Your task to perform on an android device: toggle data saver in the chrome app Image 0: 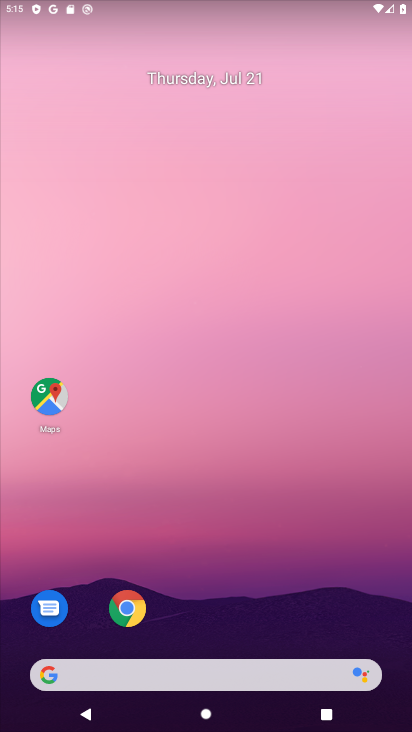
Step 0: click (132, 609)
Your task to perform on an android device: toggle data saver in the chrome app Image 1: 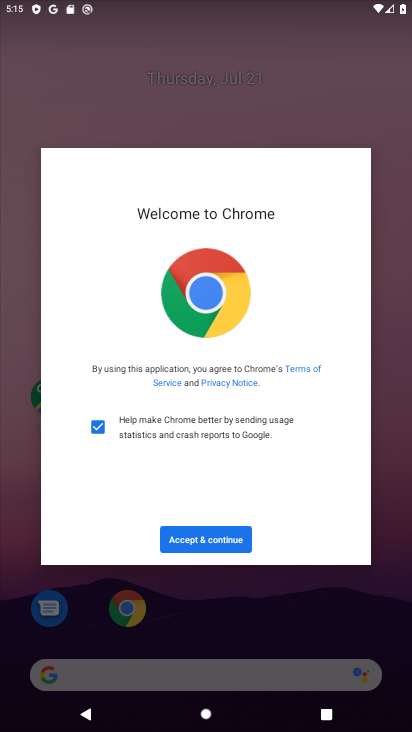
Step 1: click (208, 539)
Your task to perform on an android device: toggle data saver in the chrome app Image 2: 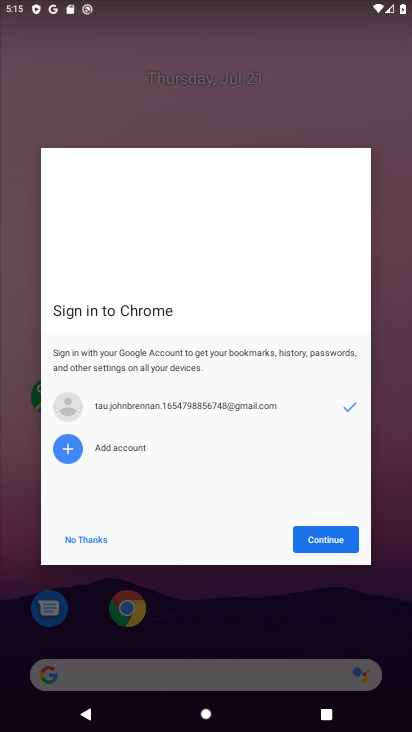
Step 2: click (316, 533)
Your task to perform on an android device: toggle data saver in the chrome app Image 3: 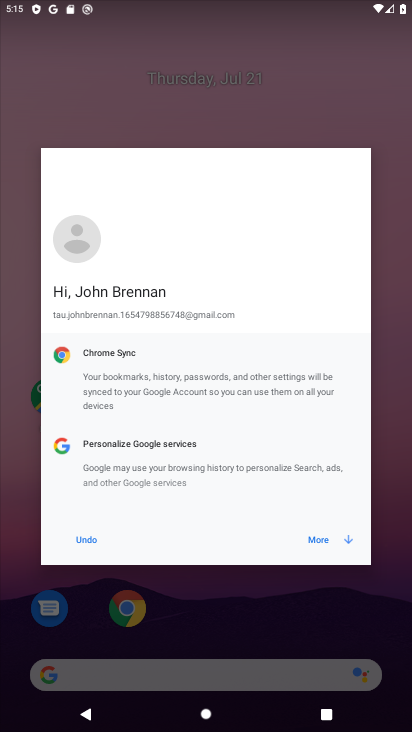
Step 3: click (316, 533)
Your task to perform on an android device: toggle data saver in the chrome app Image 4: 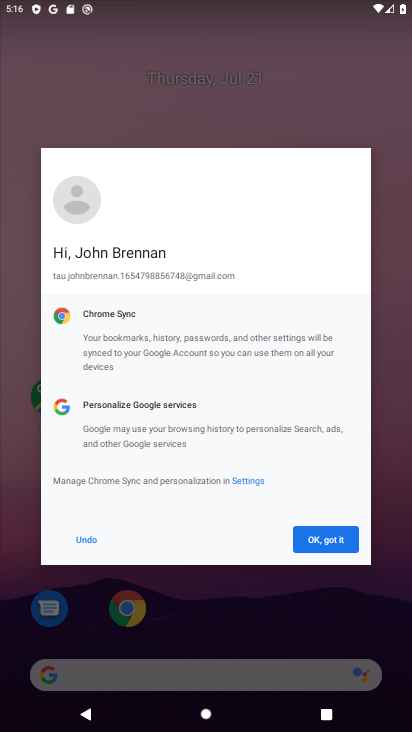
Step 4: click (319, 539)
Your task to perform on an android device: toggle data saver in the chrome app Image 5: 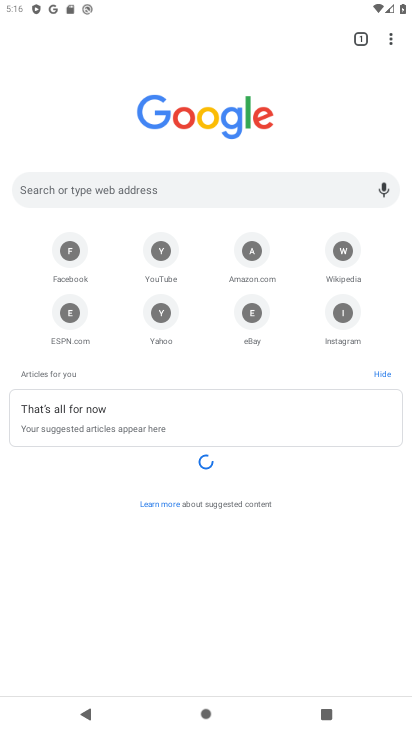
Step 5: click (388, 36)
Your task to perform on an android device: toggle data saver in the chrome app Image 6: 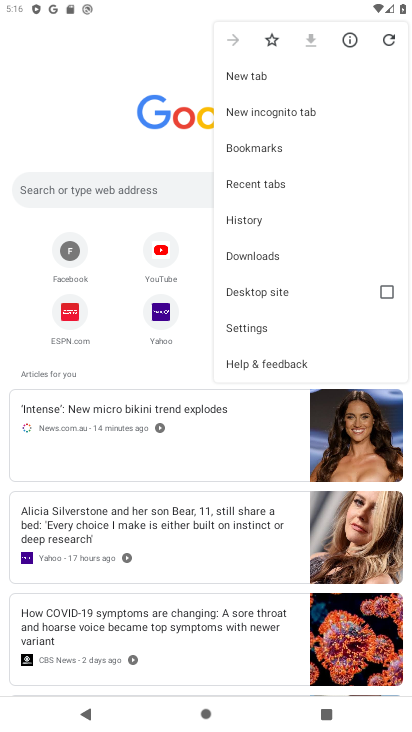
Step 6: click (251, 325)
Your task to perform on an android device: toggle data saver in the chrome app Image 7: 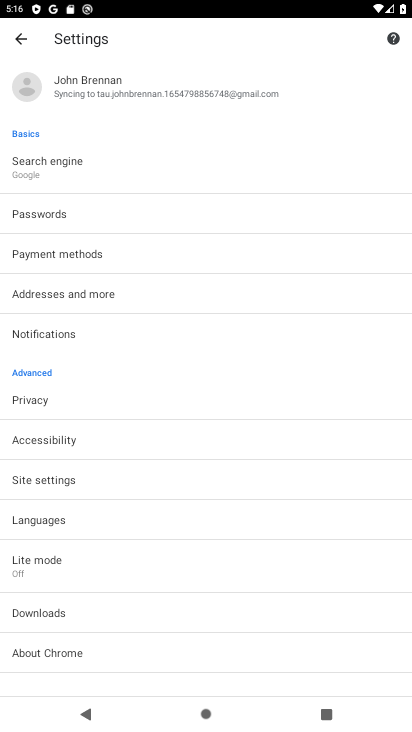
Step 7: click (28, 564)
Your task to perform on an android device: toggle data saver in the chrome app Image 8: 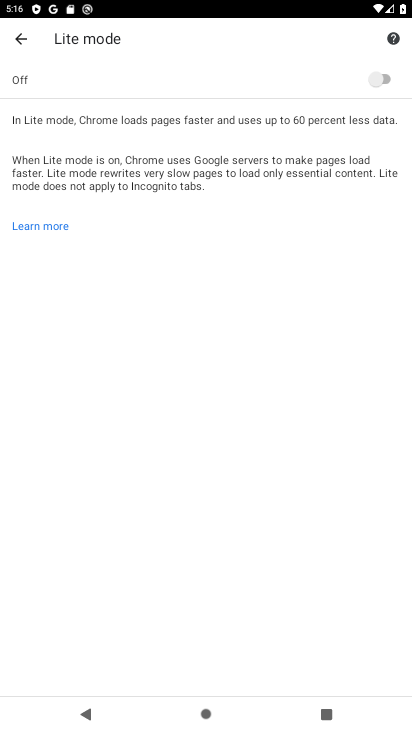
Step 8: click (388, 79)
Your task to perform on an android device: toggle data saver in the chrome app Image 9: 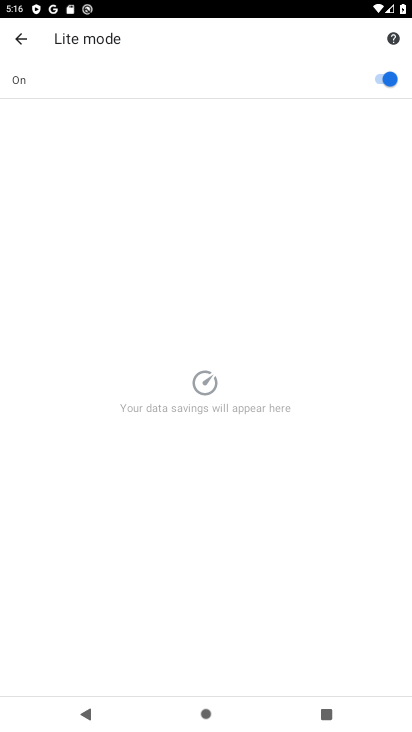
Step 9: task complete